Your task to perform on an android device: Open settings Image 0: 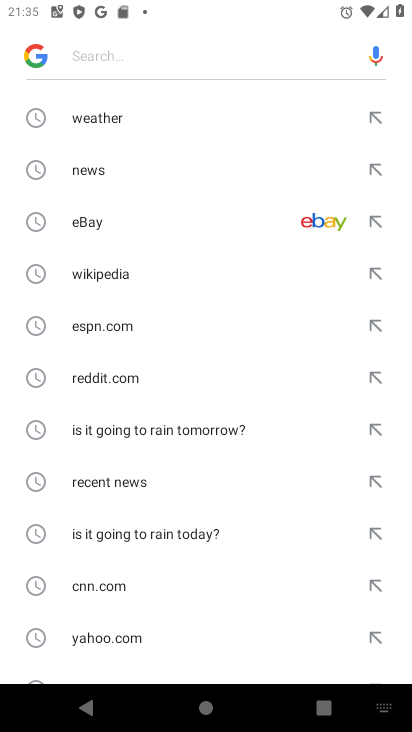
Step 0: press home button
Your task to perform on an android device: Open settings Image 1: 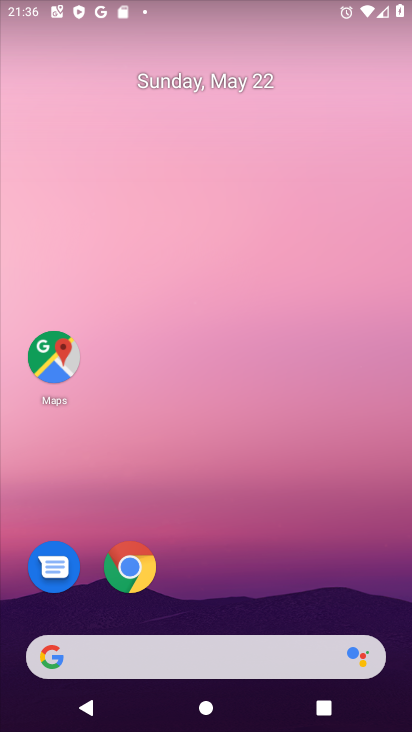
Step 1: drag from (170, 598) to (293, 25)
Your task to perform on an android device: Open settings Image 2: 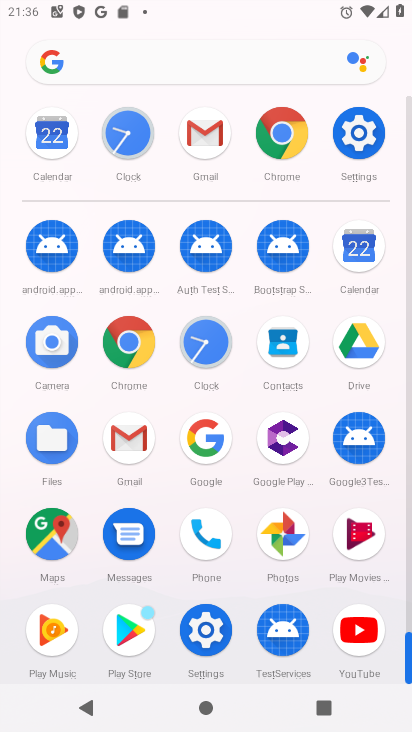
Step 2: click (215, 640)
Your task to perform on an android device: Open settings Image 3: 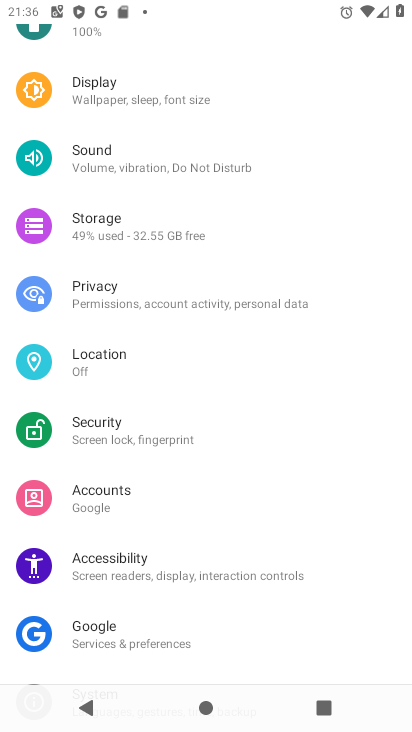
Step 3: task complete